Your task to perform on an android device: View the shopping cart on amazon.com. Add logitech g pro to the cart on amazon.com, then select checkout. Image 0: 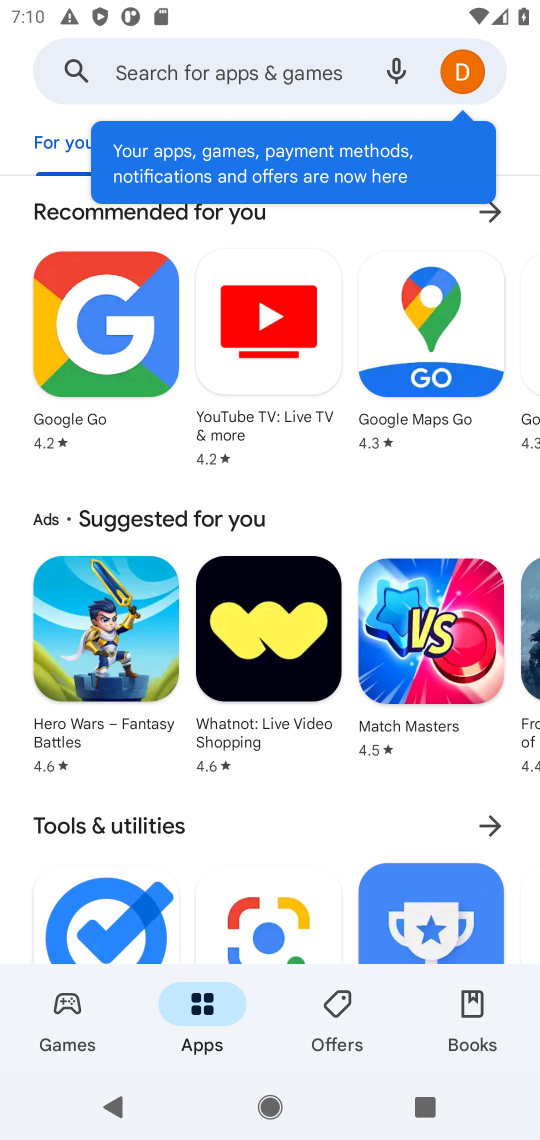
Step 0: press home button
Your task to perform on an android device: View the shopping cart on amazon.com. Add logitech g pro to the cart on amazon.com, then select checkout. Image 1: 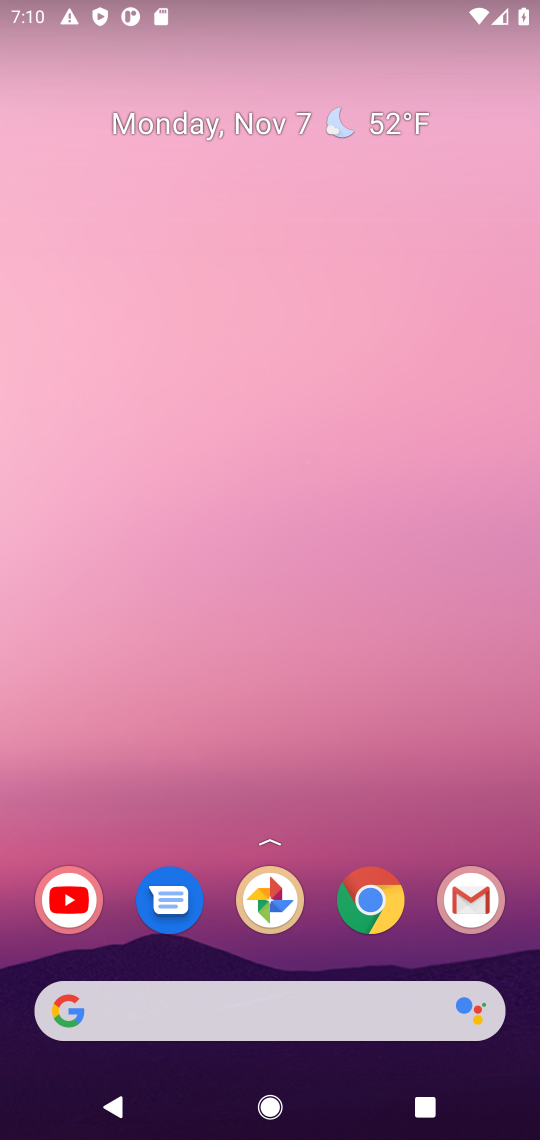
Step 1: click (363, 900)
Your task to perform on an android device: View the shopping cart on amazon.com. Add logitech g pro to the cart on amazon.com, then select checkout. Image 2: 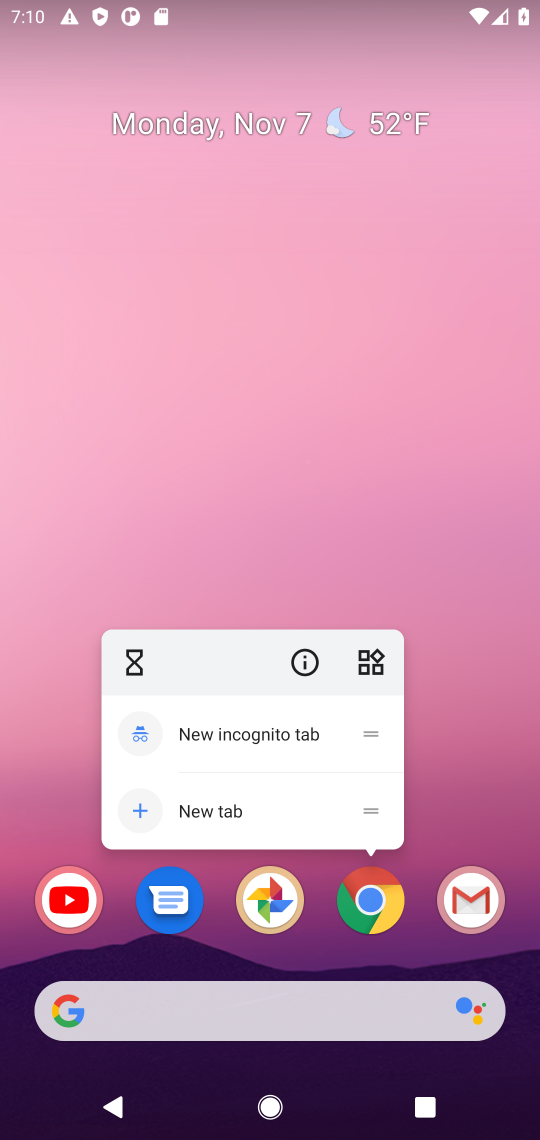
Step 2: click (406, 888)
Your task to perform on an android device: View the shopping cart on amazon.com. Add logitech g pro to the cart on amazon.com, then select checkout. Image 3: 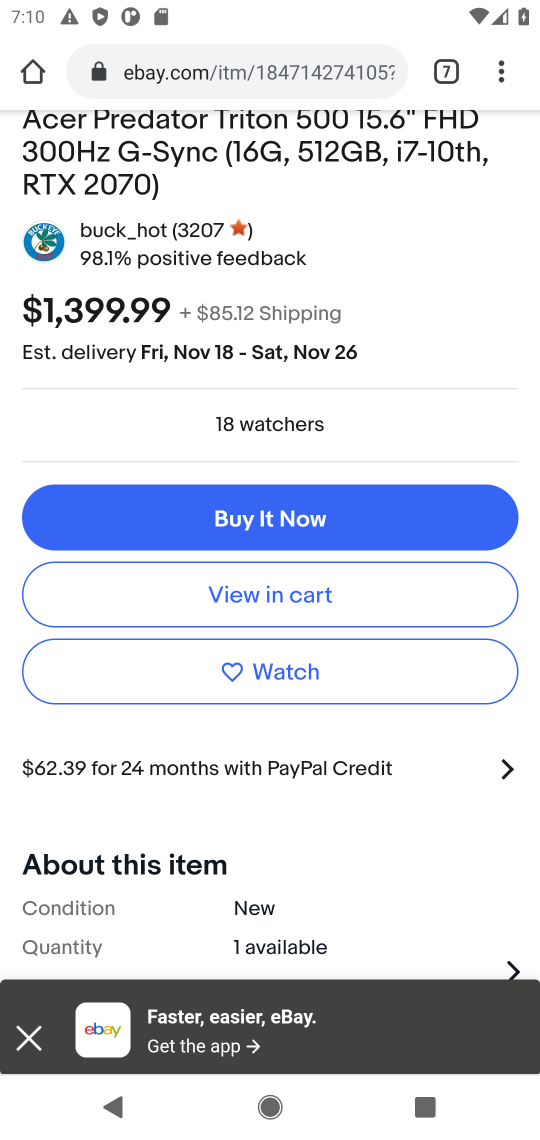
Step 3: drag from (421, 517) to (367, 1106)
Your task to perform on an android device: View the shopping cart on amazon.com. Add logitech g pro to the cart on amazon.com, then select checkout. Image 4: 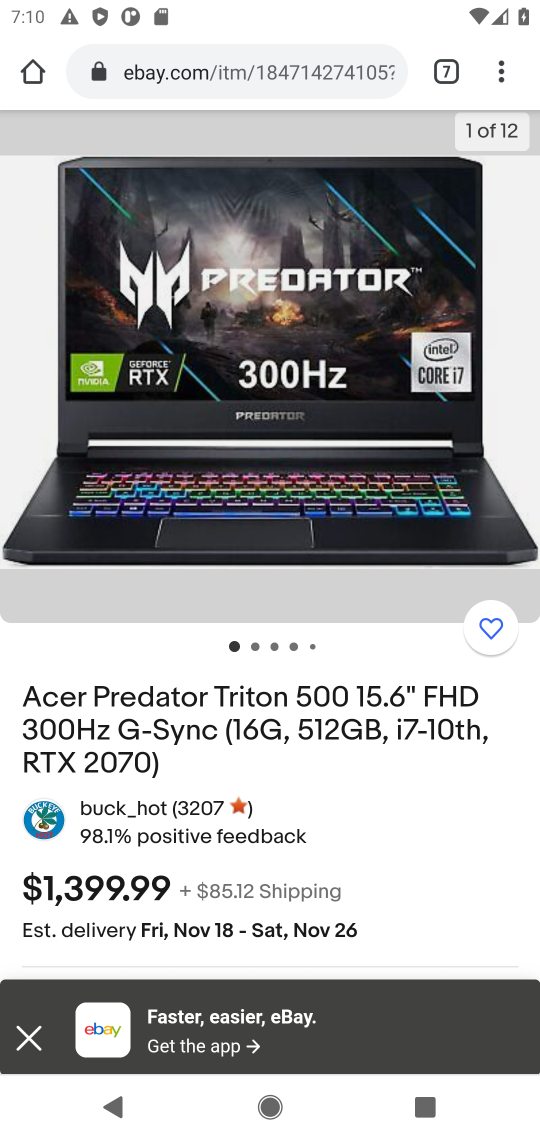
Step 4: click (442, 76)
Your task to perform on an android device: View the shopping cart on amazon.com. Add logitech g pro to the cart on amazon.com, then select checkout. Image 5: 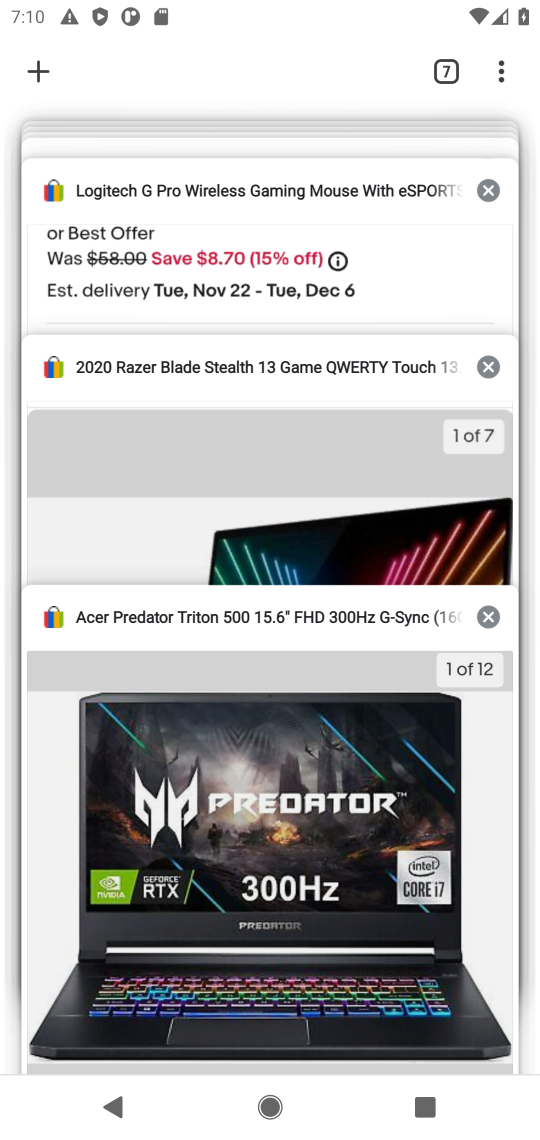
Step 5: click (31, 50)
Your task to perform on an android device: View the shopping cart on amazon.com. Add logitech g pro to the cart on amazon.com, then select checkout. Image 6: 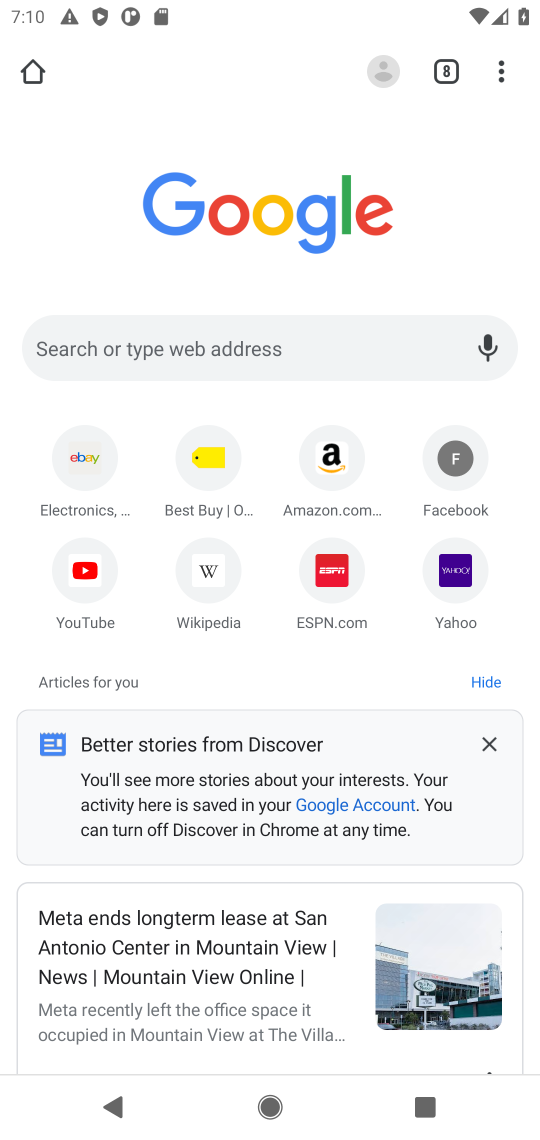
Step 6: click (317, 453)
Your task to perform on an android device: View the shopping cart on amazon.com. Add logitech g pro to the cart on amazon.com, then select checkout. Image 7: 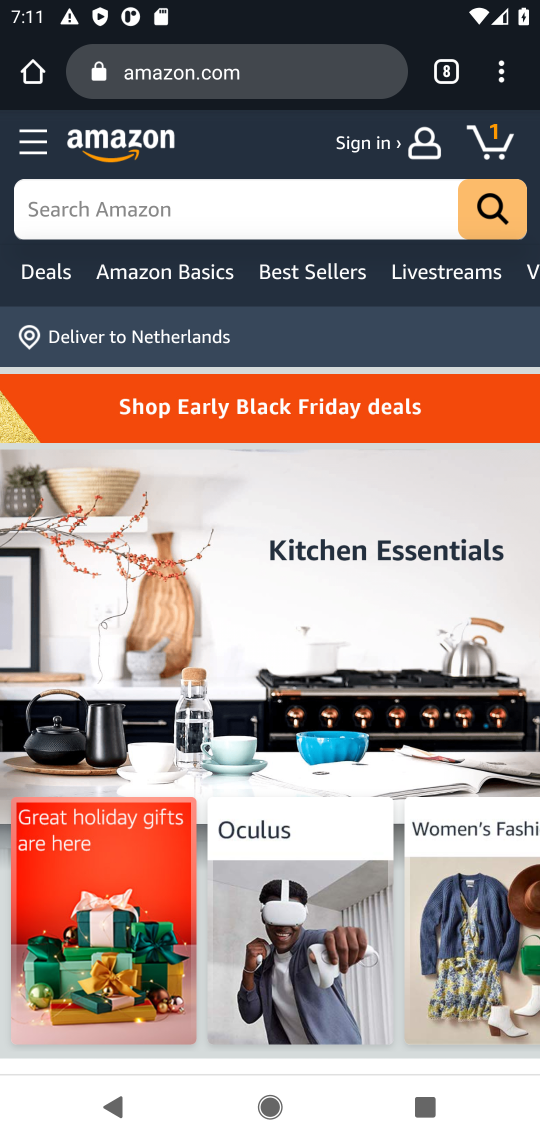
Step 7: click (296, 223)
Your task to perform on an android device: View the shopping cart on amazon.com. Add logitech g pro to the cart on amazon.com, then select checkout. Image 8: 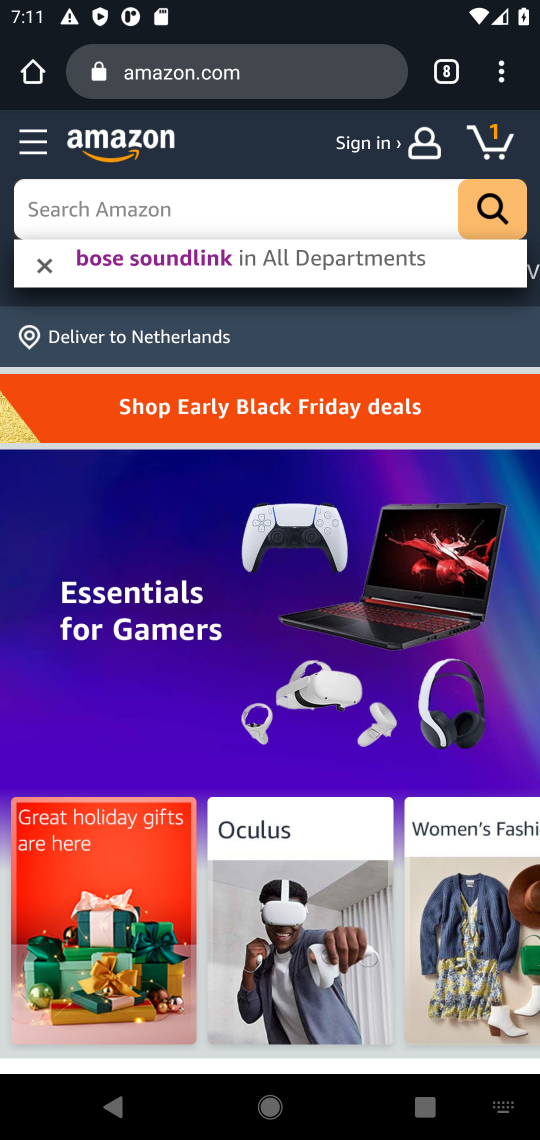
Step 8: type "logitech g pro"
Your task to perform on an android device: View the shopping cart on amazon.com. Add logitech g pro to the cart on amazon.com, then select checkout. Image 9: 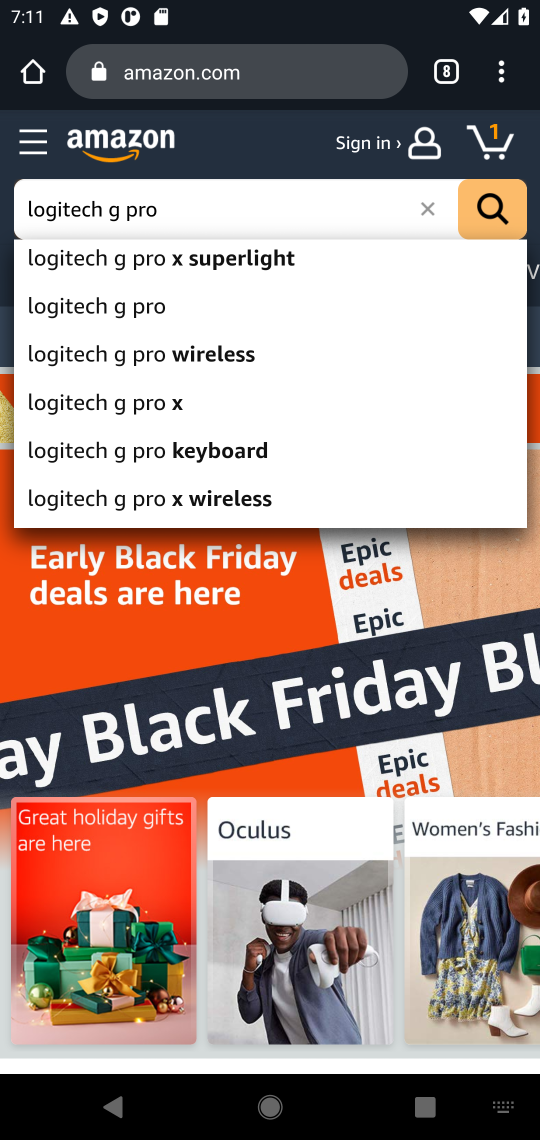
Step 9: click (82, 314)
Your task to perform on an android device: View the shopping cart on amazon.com. Add logitech g pro to the cart on amazon.com, then select checkout. Image 10: 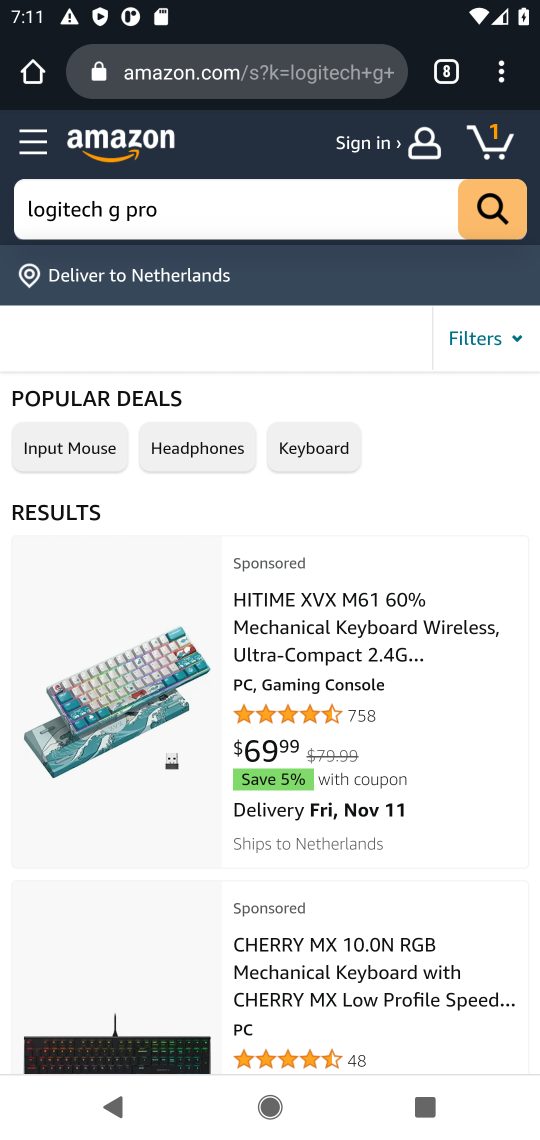
Step 10: drag from (189, 925) to (300, 293)
Your task to perform on an android device: View the shopping cart on amazon.com. Add logitech g pro to the cart on amazon.com, then select checkout. Image 11: 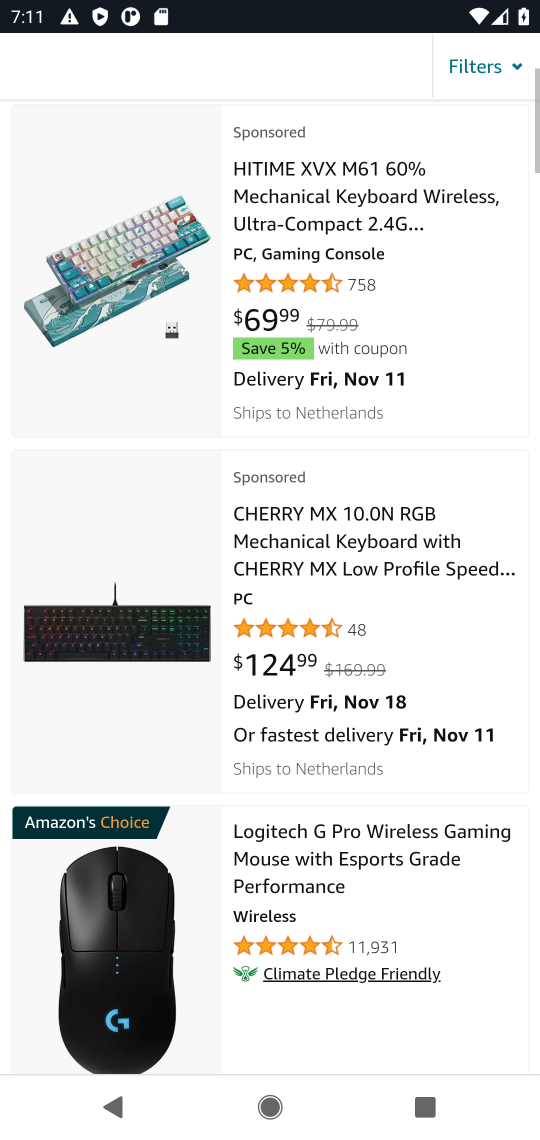
Step 11: drag from (306, 869) to (357, 136)
Your task to perform on an android device: View the shopping cart on amazon.com. Add logitech g pro to the cart on amazon.com, then select checkout. Image 12: 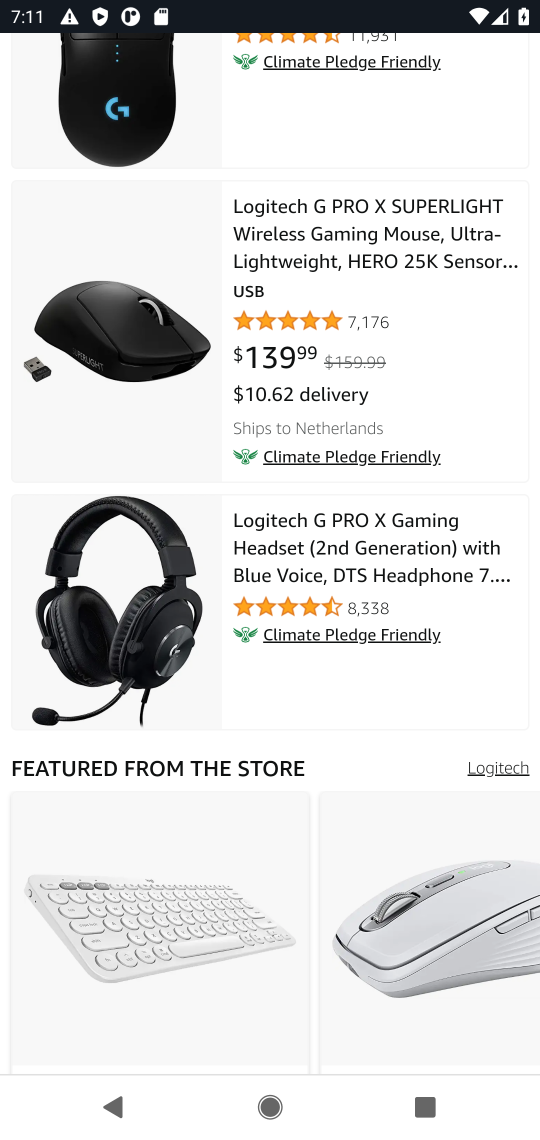
Step 12: drag from (351, 364) to (330, 891)
Your task to perform on an android device: View the shopping cart on amazon.com. Add logitech g pro to the cart on amazon.com, then select checkout. Image 13: 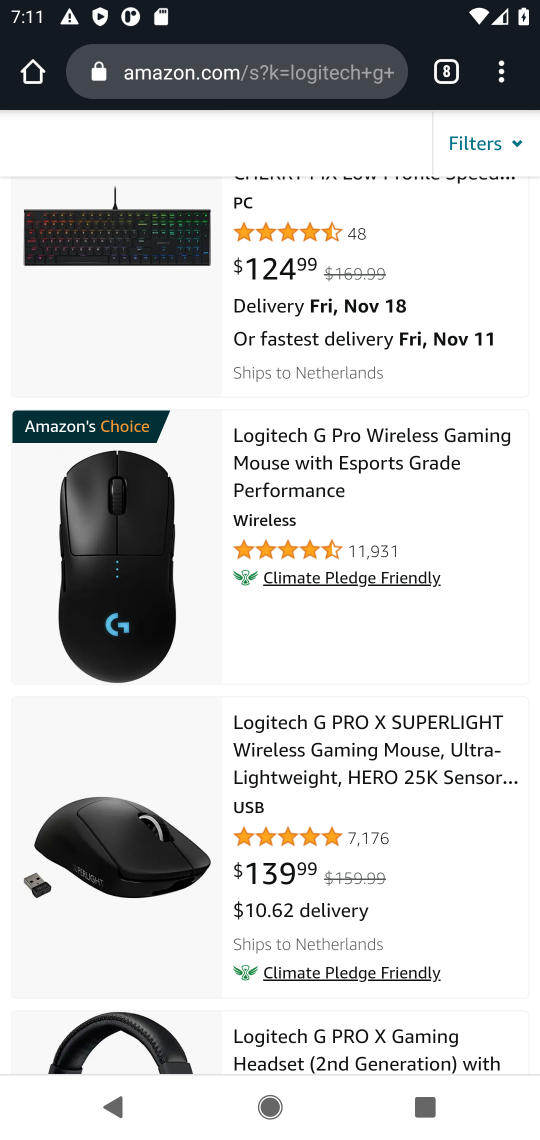
Step 13: click (328, 491)
Your task to perform on an android device: View the shopping cart on amazon.com. Add logitech g pro to the cart on amazon.com, then select checkout. Image 14: 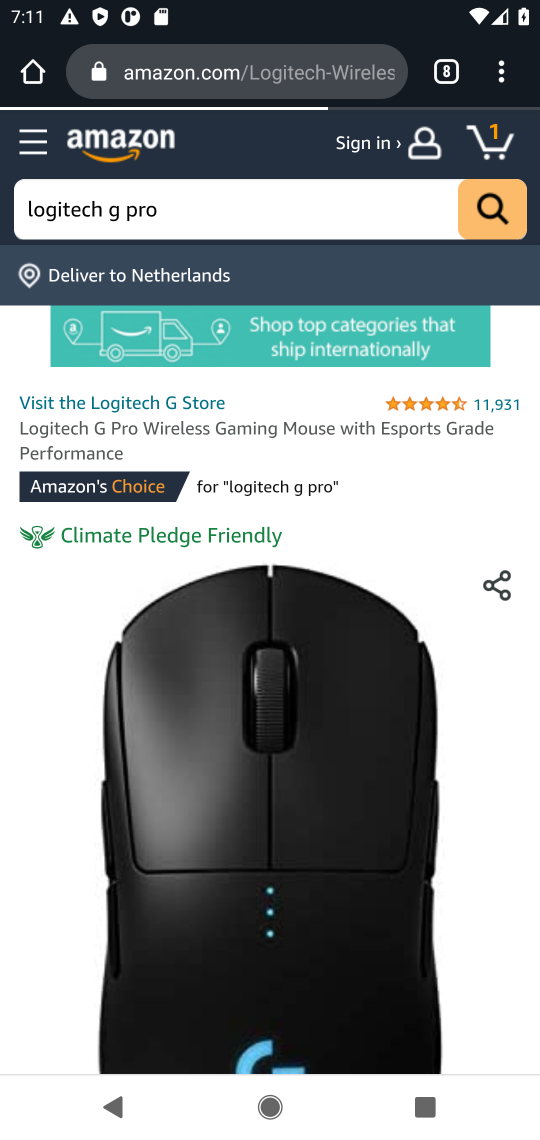
Step 14: task complete